Your task to perform on an android device: change the clock display to analog Image 0: 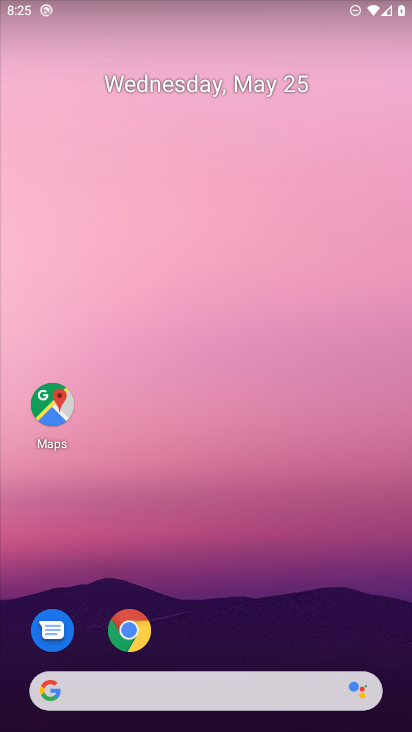
Step 0: drag from (219, 650) to (257, 368)
Your task to perform on an android device: change the clock display to analog Image 1: 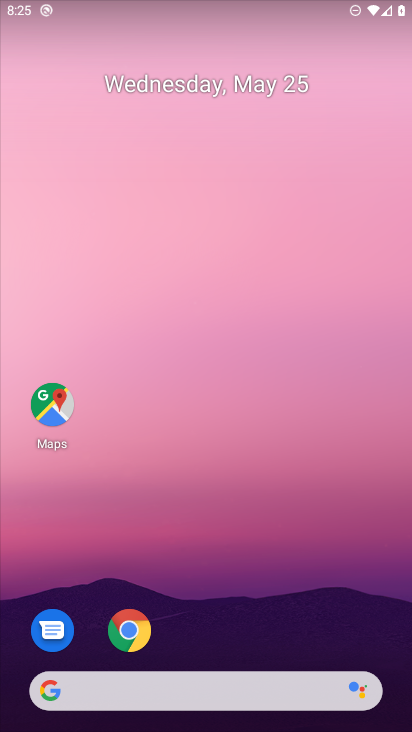
Step 1: drag from (195, 666) to (297, 286)
Your task to perform on an android device: change the clock display to analog Image 2: 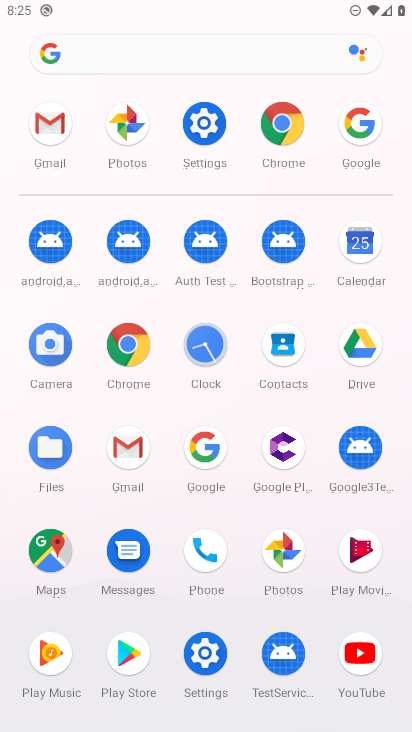
Step 2: click (211, 363)
Your task to perform on an android device: change the clock display to analog Image 3: 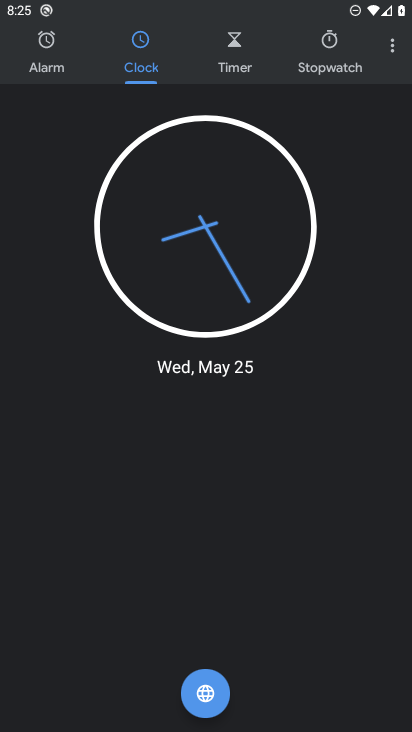
Step 3: click (389, 44)
Your task to perform on an android device: change the clock display to analog Image 4: 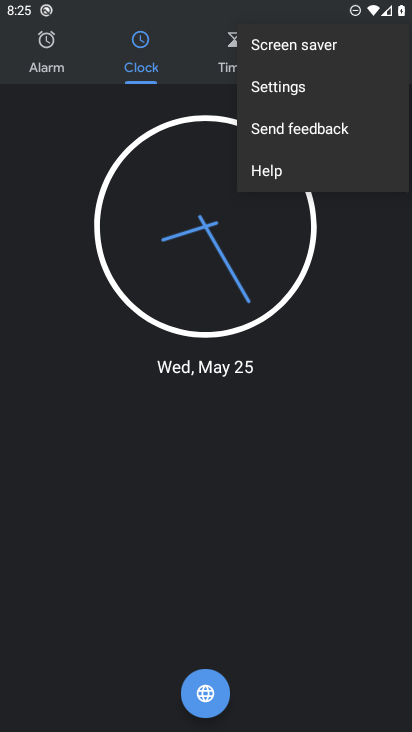
Step 4: click (258, 94)
Your task to perform on an android device: change the clock display to analog Image 5: 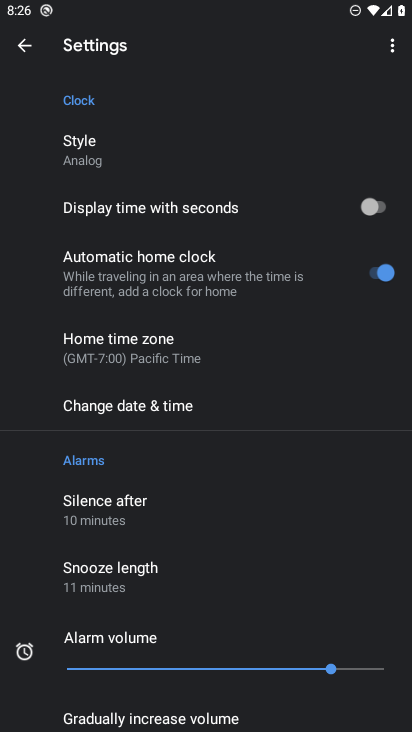
Step 5: task complete